Your task to perform on an android device: What's the weather? Image 0: 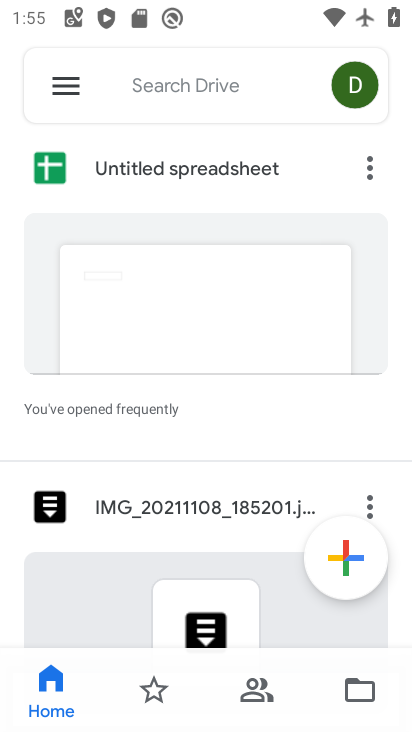
Step 0: press home button
Your task to perform on an android device: What's the weather? Image 1: 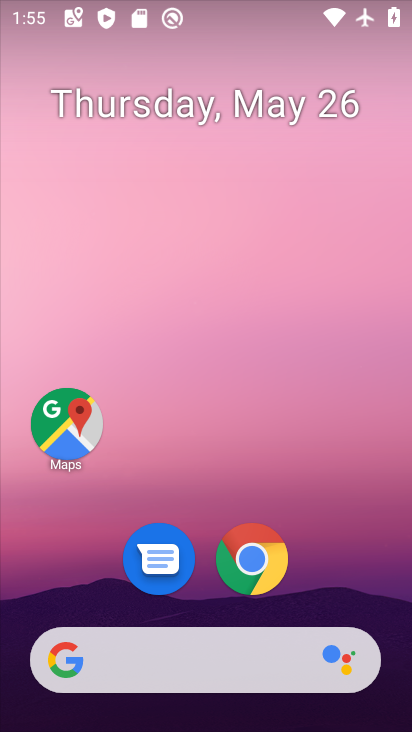
Step 1: click (75, 661)
Your task to perform on an android device: What's the weather? Image 2: 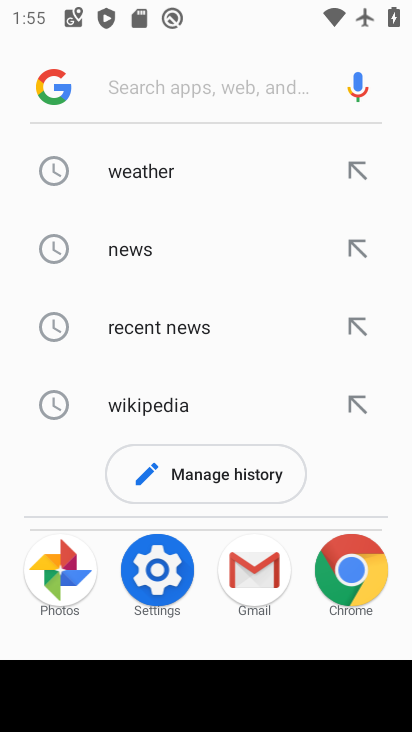
Step 2: click (153, 170)
Your task to perform on an android device: What's the weather? Image 3: 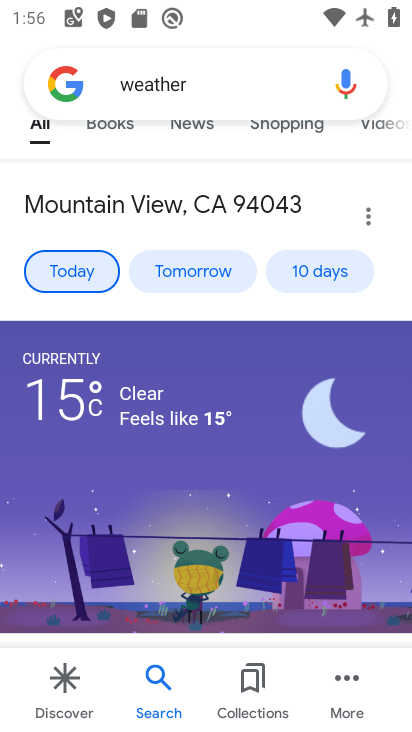
Step 3: task complete